Your task to perform on an android device: Empty the shopping cart on ebay.com. Add macbook pro 15 inch to the cart on ebay.com Image 0: 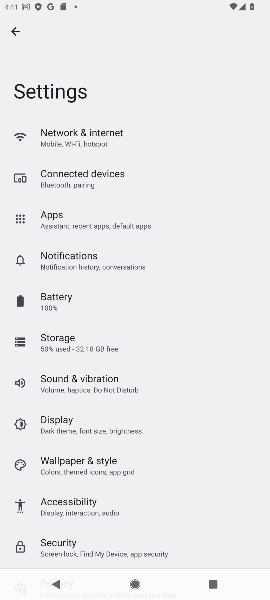
Step 0: press home button
Your task to perform on an android device: Empty the shopping cart on ebay.com. Add macbook pro 15 inch to the cart on ebay.com Image 1: 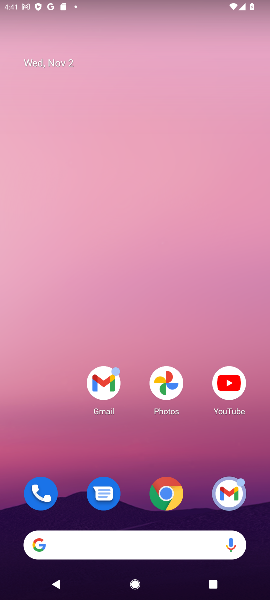
Step 1: drag from (91, 525) to (141, 185)
Your task to perform on an android device: Empty the shopping cart on ebay.com. Add macbook pro 15 inch to the cart on ebay.com Image 2: 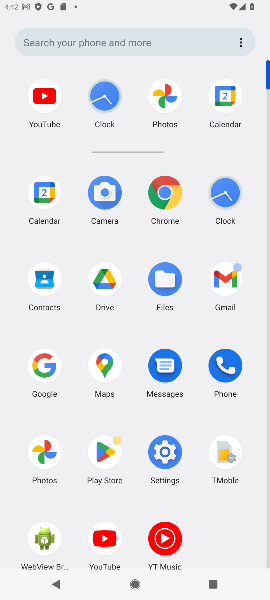
Step 2: click (49, 365)
Your task to perform on an android device: Empty the shopping cart on ebay.com. Add macbook pro 15 inch to the cart on ebay.com Image 3: 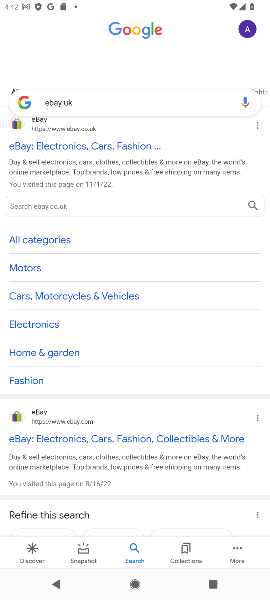
Step 3: click (16, 130)
Your task to perform on an android device: Empty the shopping cart on ebay.com. Add macbook pro 15 inch to the cart on ebay.com Image 4: 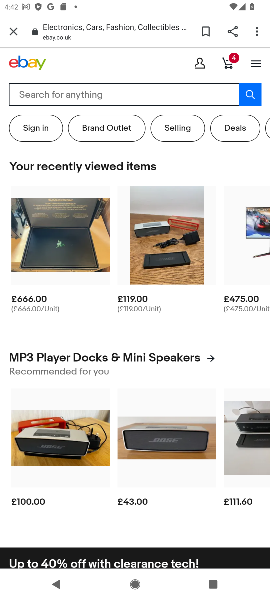
Step 4: click (78, 91)
Your task to perform on an android device: Empty the shopping cart on ebay.com. Add macbook pro 15 inch to the cart on ebay.com Image 5: 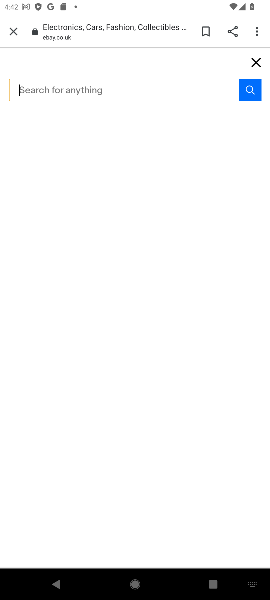
Step 5: type "macbook pro 15 i "
Your task to perform on an android device: Empty the shopping cart on ebay.com. Add macbook pro 15 inch to the cart on ebay.com Image 6: 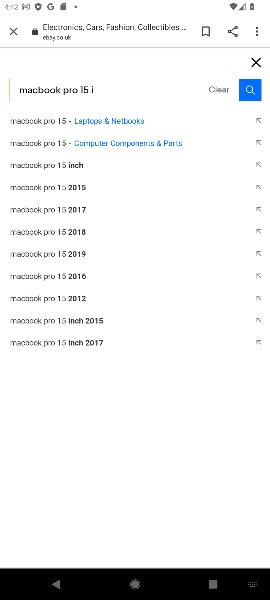
Step 6: click (53, 167)
Your task to perform on an android device: Empty the shopping cart on ebay.com. Add macbook pro 15 inch to the cart on ebay.com Image 7: 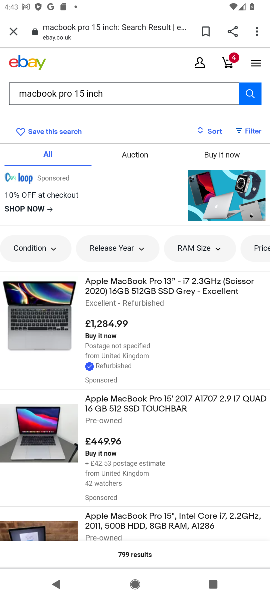
Step 7: click (124, 293)
Your task to perform on an android device: Empty the shopping cart on ebay.com. Add macbook pro 15 inch to the cart on ebay.com Image 8: 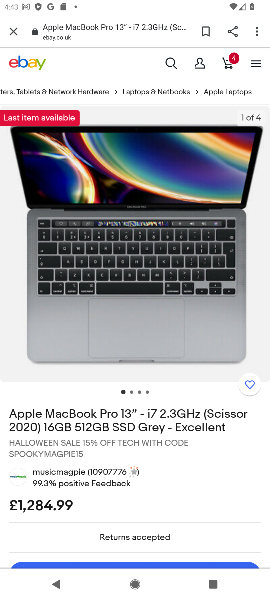
Step 8: drag from (150, 480) to (170, 273)
Your task to perform on an android device: Empty the shopping cart on ebay.com. Add macbook pro 15 inch to the cart on ebay.com Image 9: 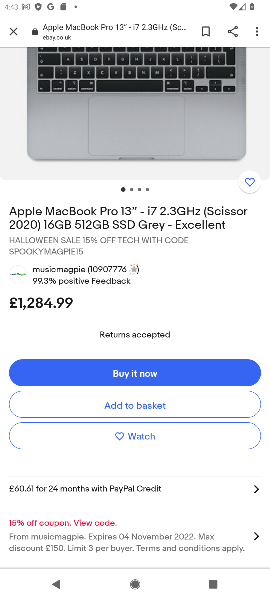
Step 9: click (124, 403)
Your task to perform on an android device: Empty the shopping cart on ebay.com. Add macbook pro 15 inch to the cart on ebay.com Image 10: 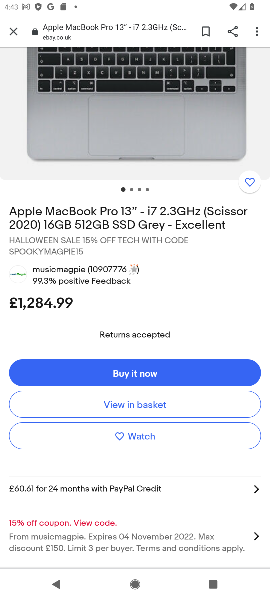
Step 10: click (97, 405)
Your task to perform on an android device: Empty the shopping cart on ebay.com. Add macbook pro 15 inch to the cart on ebay.com Image 11: 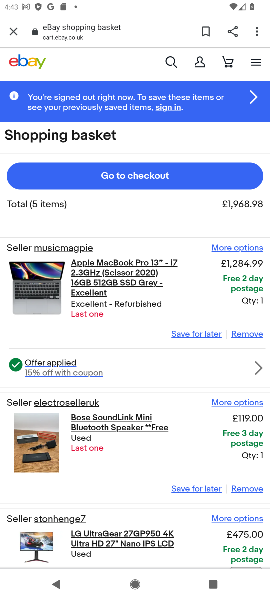
Step 11: task complete